Your task to perform on an android device: change text size in settings app Image 0: 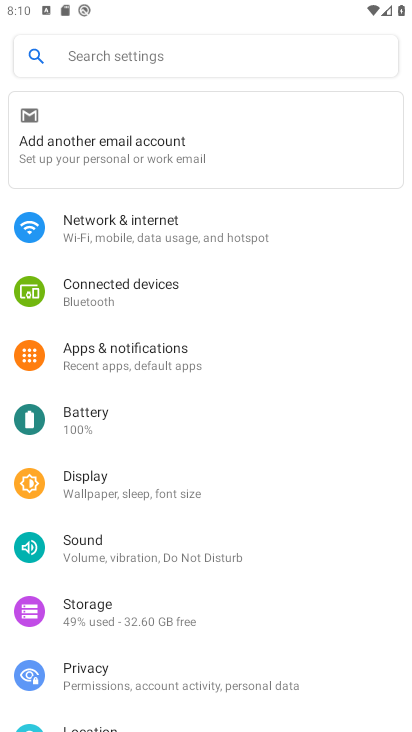
Step 0: press home button
Your task to perform on an android device: change text size in settings app Image 1: 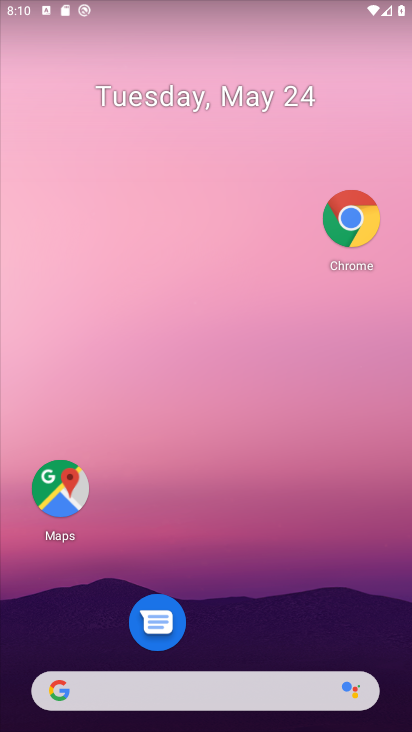
Step 1: drag from (259, 701) to (256, 110)
Your task to perform on an android device: change text size in settings app Image 2: 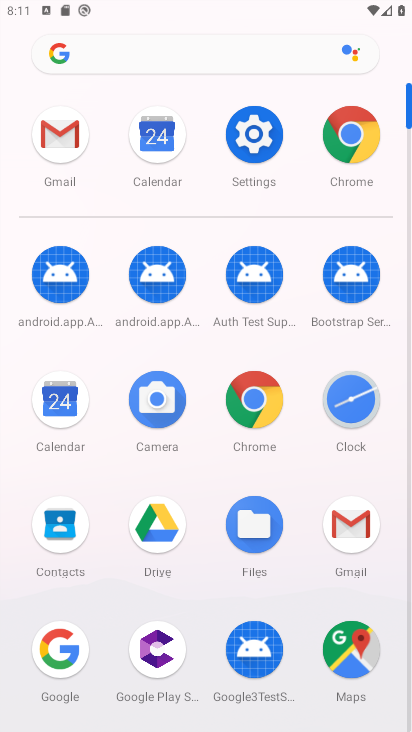
Step 2: click (255, 144)
Your task to perform on an android device: change text size in settings app Image 3: 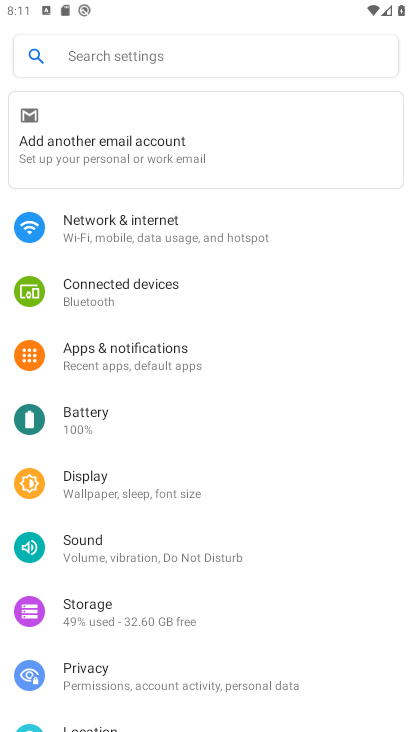
Step 3: click (145, 57)
Your task to perform on an android device: change text size in settings app Image 4: 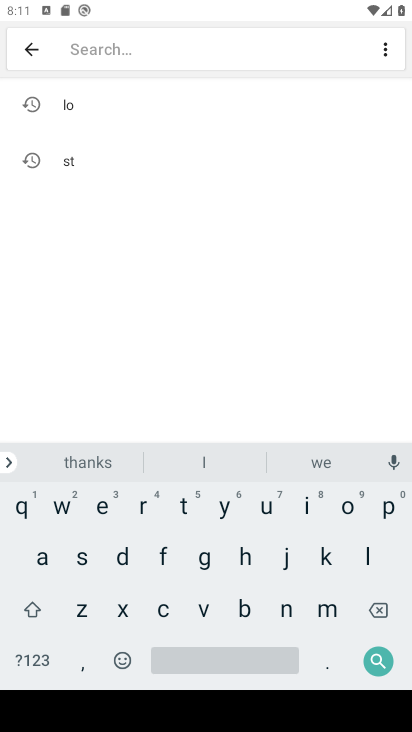
Step 4: click (79, 559)
Your task to perform on an android device: change text size in settings app Image 5: 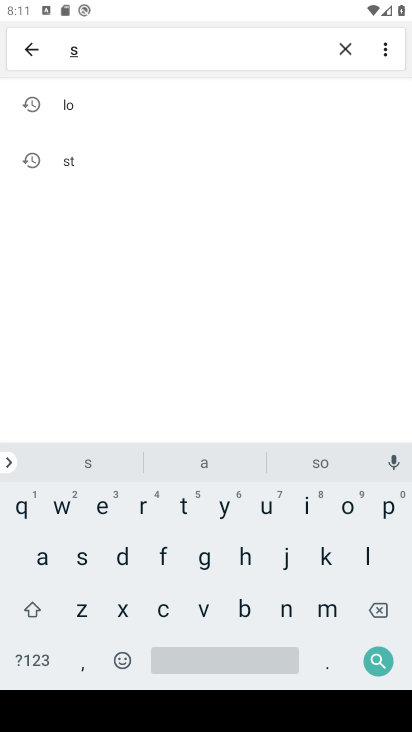
Step 5: click (305, 507)
Your task to perform on an android device: change text size in settings app Image 6: 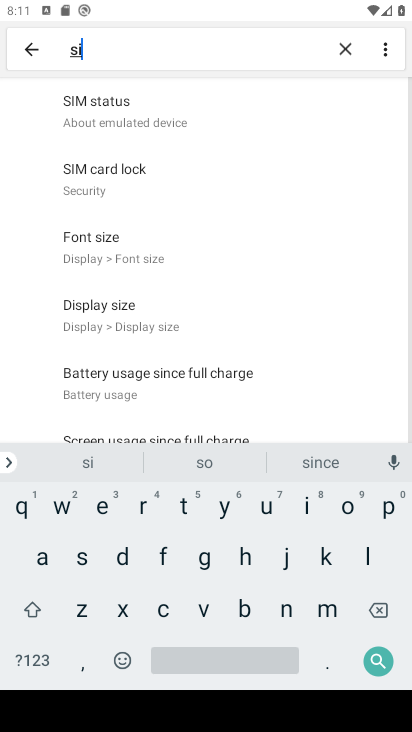
Step 6: click (75, 605)
Your task to perform on an android device: change text size in settings app Image 7: 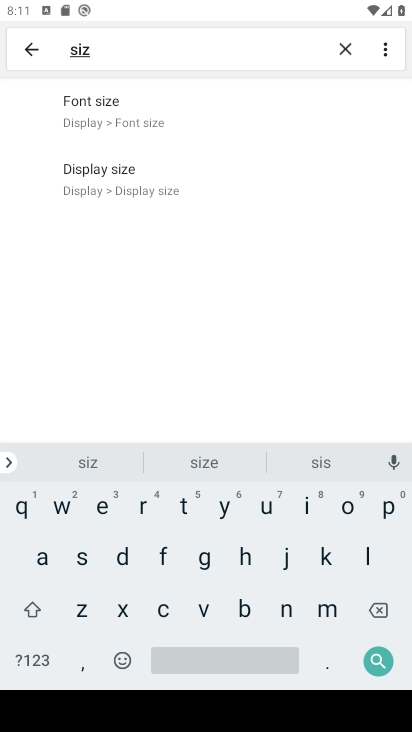
Step 7: click (155, 115)
Your task to perform on an android device: change text size in settings app Image 8: 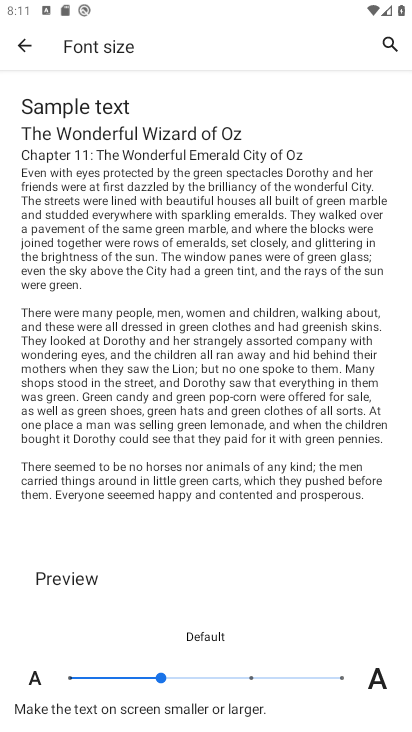
Step 8: click (230, 670)
Your task to perform on an android device: change text size in settings app Image 9: 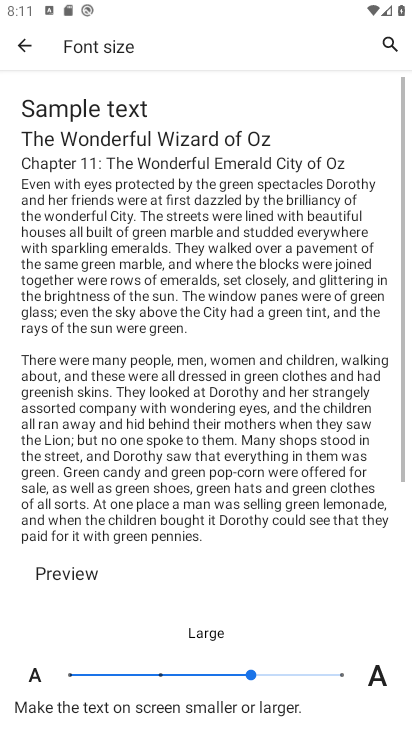
Step 9: task complete